Your task to perform on an android device: change the clock style Image 0: 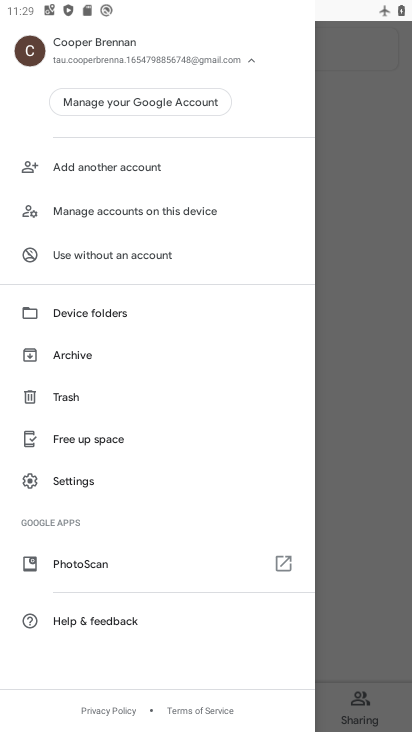
Step 0: press back button
Your task to perform on an android device: change the clock style Image 1: 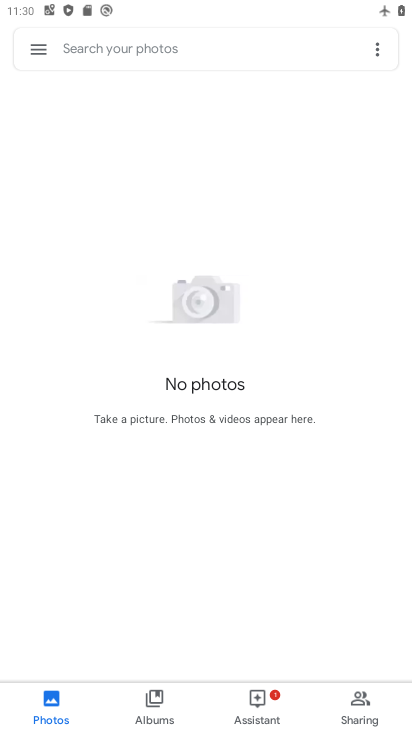
Step 1: click (403, 379)
Your task to perform on an android device: change the clock style Image 2: 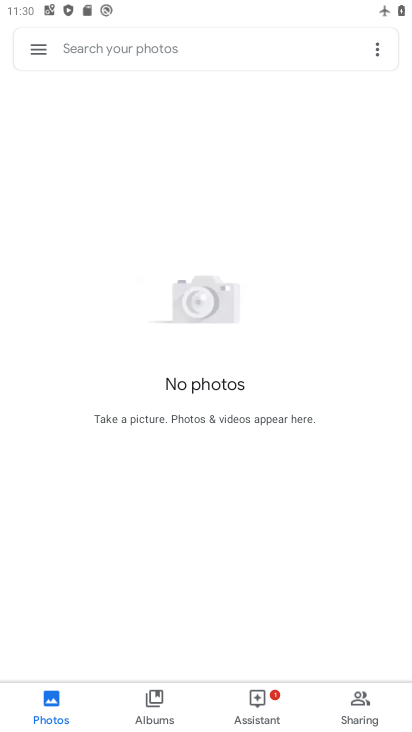
Step 2: press back button
Your task to perform on an android device: change the clock style Image 3: 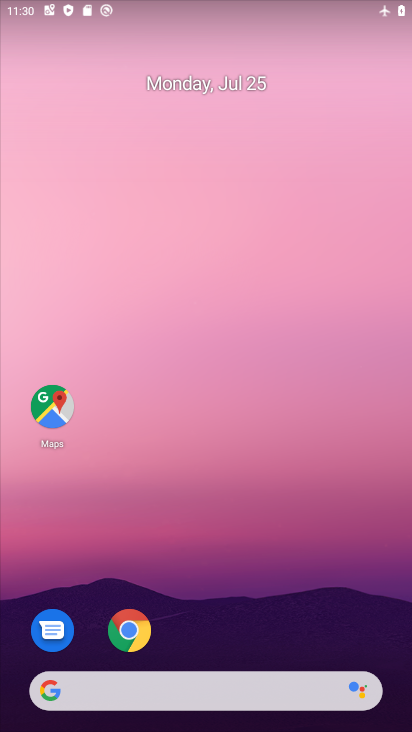
Step 3: drag from (290, 574) to (263, 286)
Your task to perform on an android device: change the clock style Image 4: 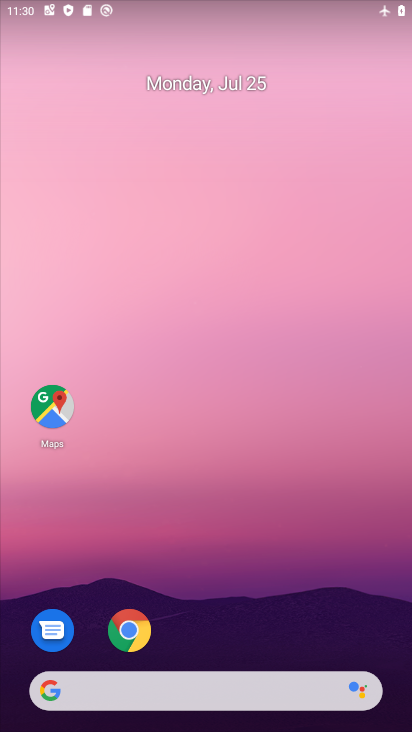
Step 4: drag from (303, 664) to (258, 222)
Your task to perform on an android device: change the clock style Image 5: 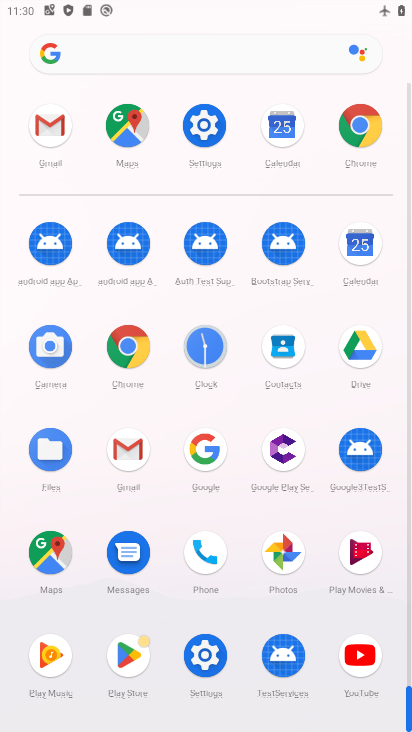
Step 5: drag from (319, 673) to (312, 238)
Your task to perform on an android device: change the clock style Image 6: 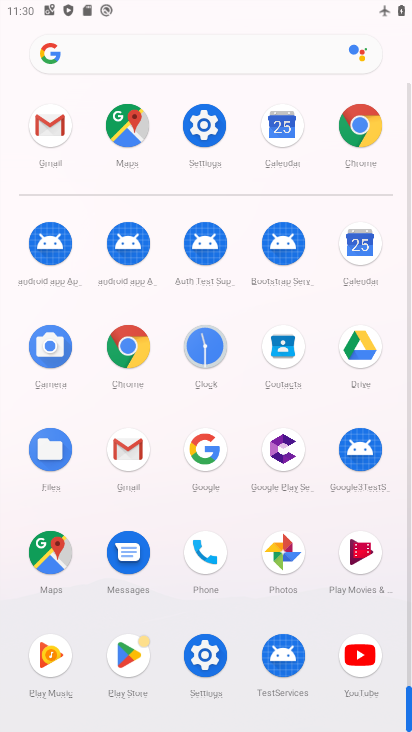
Step 6: click (204, 352)
Your task to perform on an android device: change the clock style Image 7: 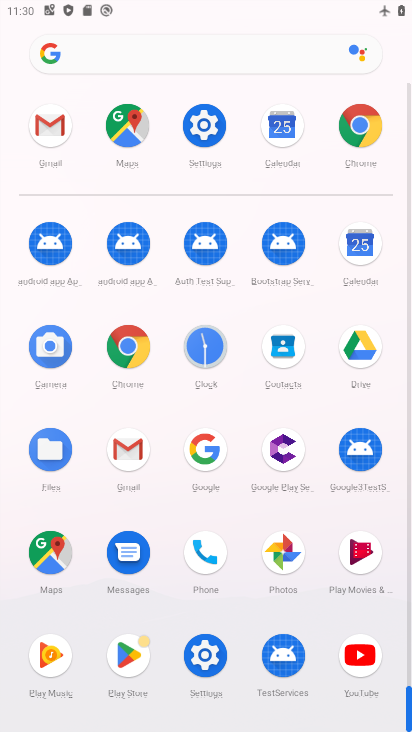
Step 7: click (204, 352)
Your task to perform on an android device: change the clock style Image 8: 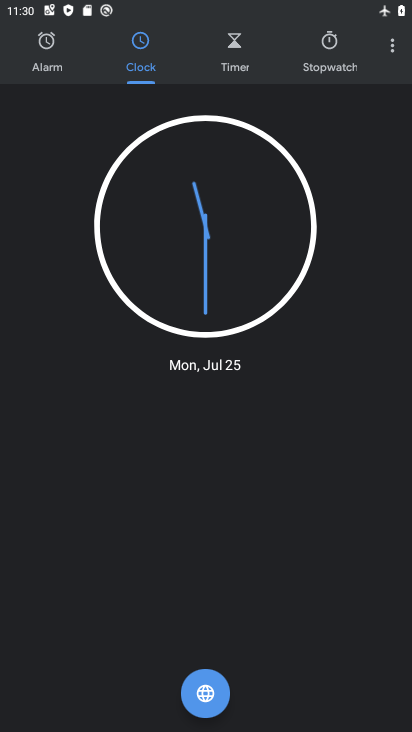
Step 8: click (394, 46)
Your task to perform on an android device: change the clock style Image 9: 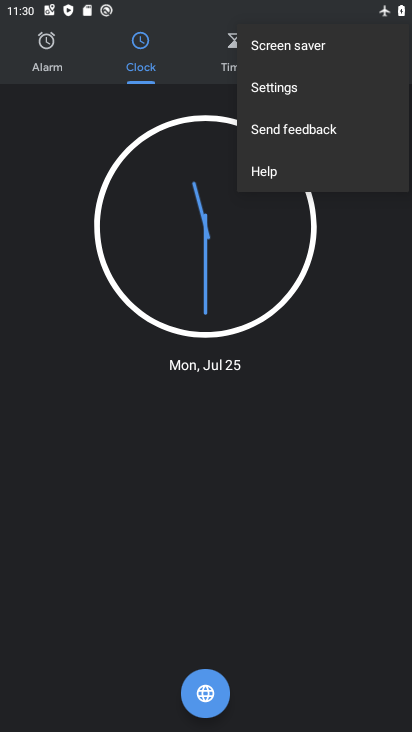
Step 9: click (299, 91)
Your task to perform on an android device: change the clock style Image 10: 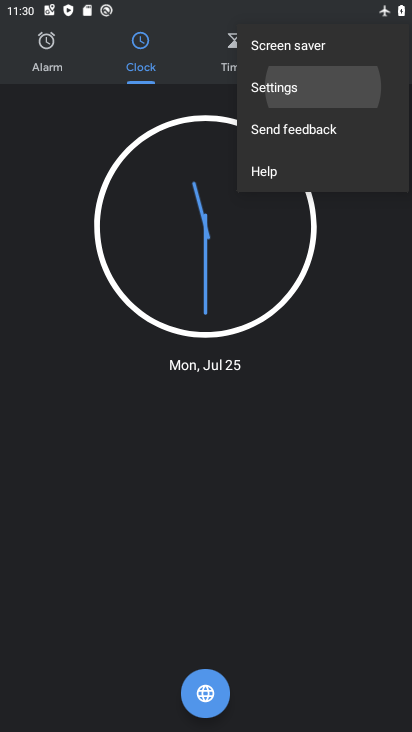
Step 10: click (297, 90)
Your task to perform on an android device: change the clock style Image 11: 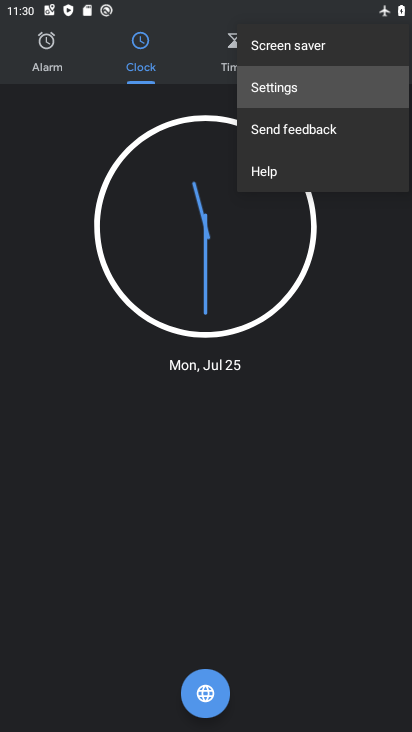
Step 11: click (297, 90)
Your task to perform on an android device: change the clock style Image 12: 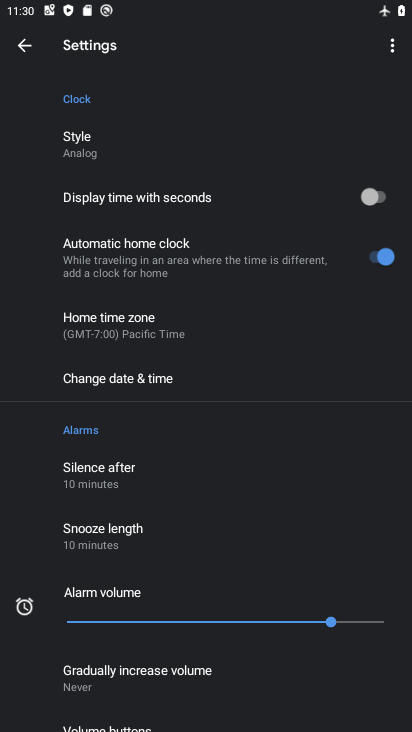
Step 12: click (96, 146)
Your task to perform on an android device: change the clock style Image 13: 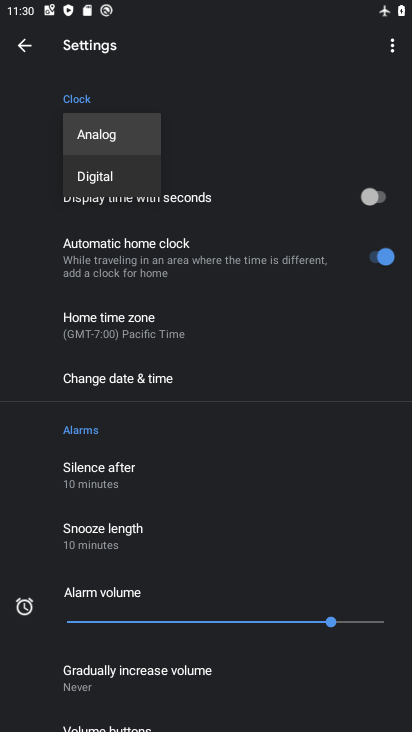
Step 13: click (102, 187)
Your task to perform on an android device: change the clock style Image 14: 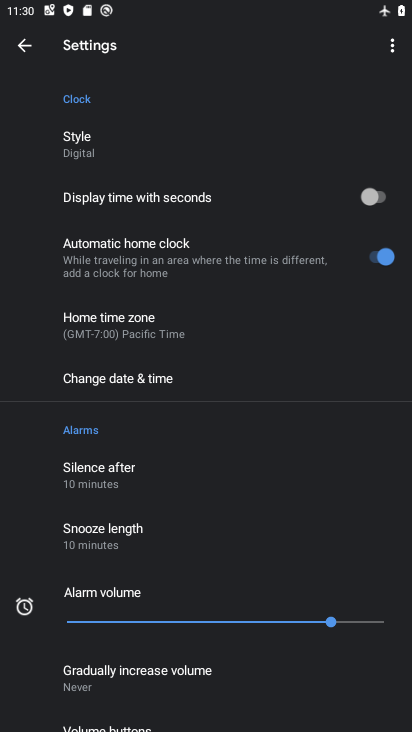
Step 14: task complete